Your task to perform on an android device: Open Yahoo.com Image 0: 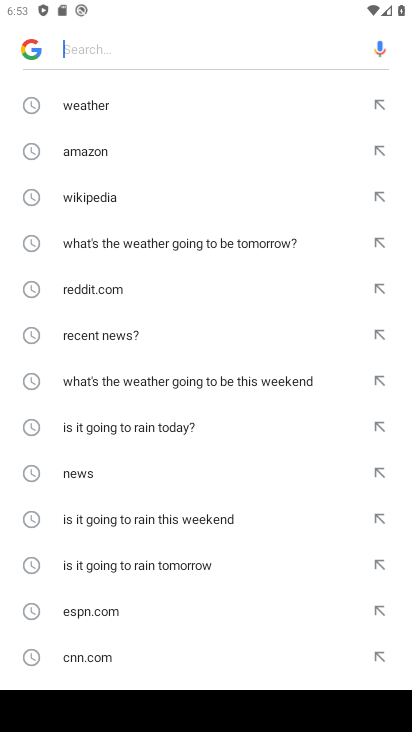
Step 0: press home button
Your task to perform on an android device: Open Yahoo.com Image 1: 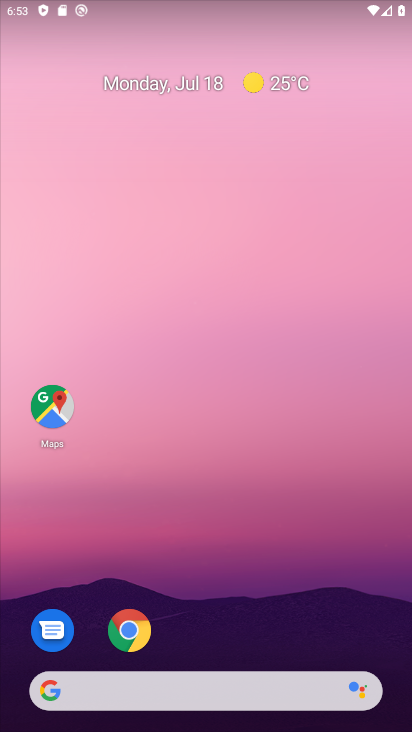
Step 1: click (139, 640)
Your task to perform on an android device: Open Yahoo.com Image 2: 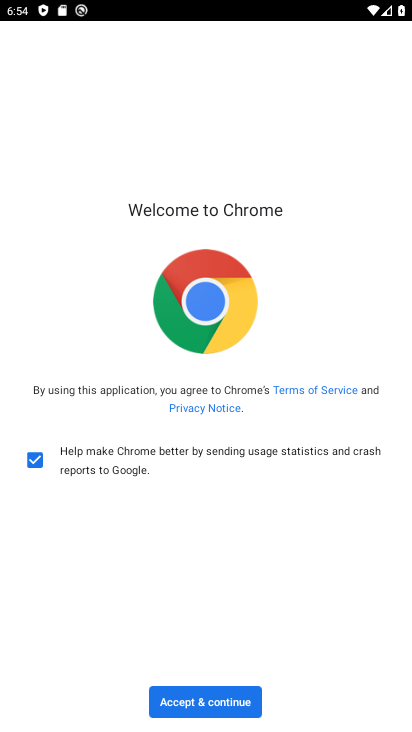
Step 2: click (194, 715)
Your task to perform on an android device: Open Yahoo.com Image 3: 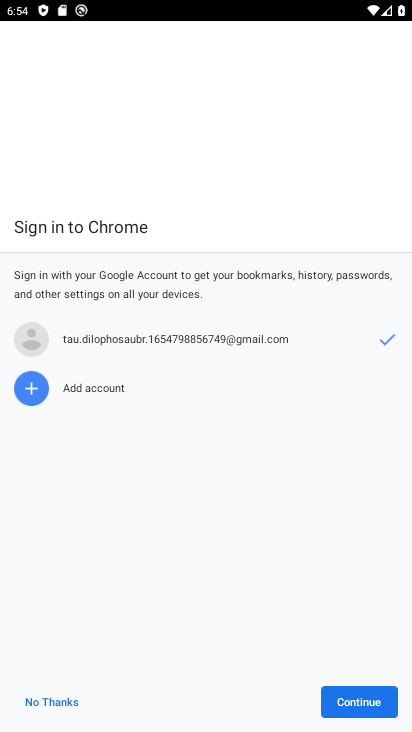
Step 3: click (362, 708)
Your task to perform on an android device: Open Yahoo.com Image 4: 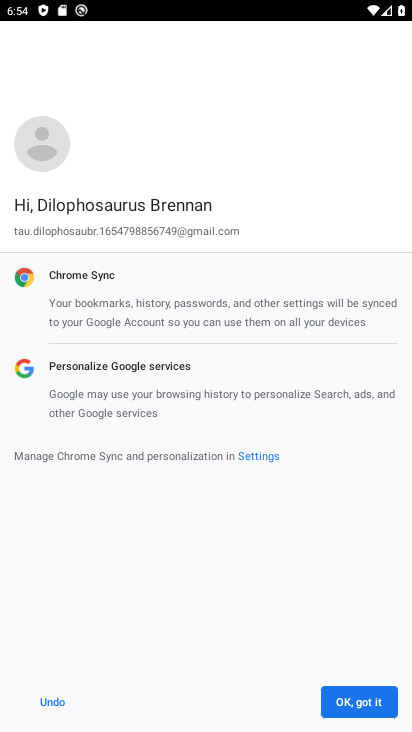
Step 4: click (348, 703)
Your task to perform on an android device: Open Yahoo.com Image 5: 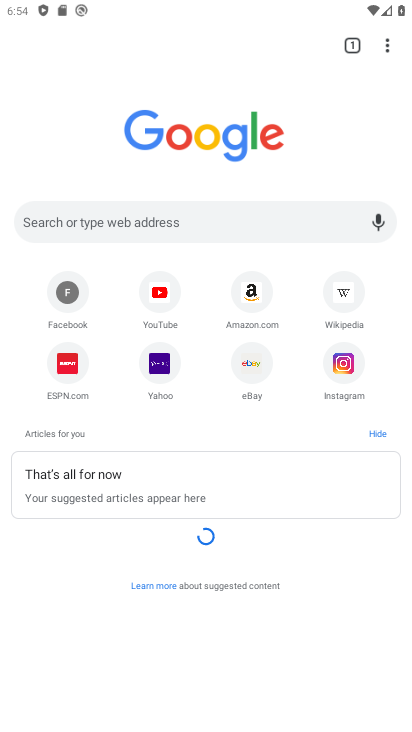
Step 5: click (169, 380)
Your task to perform on an android device: Open Yahoo.com Image 6: 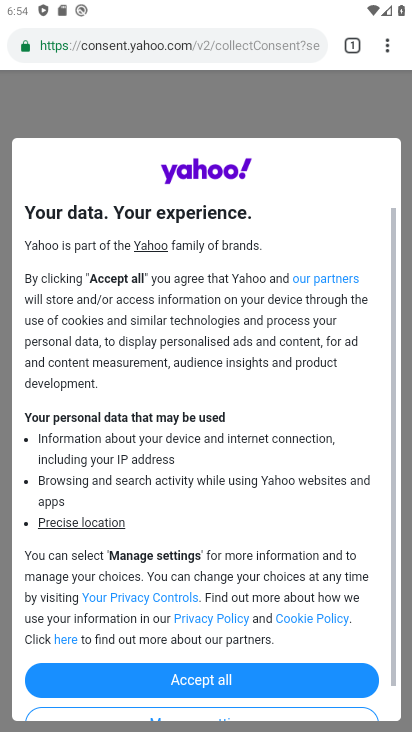
Step 6: click (226, 673)
Your task to perform on an android device: Open Yahoo.com Image 7: 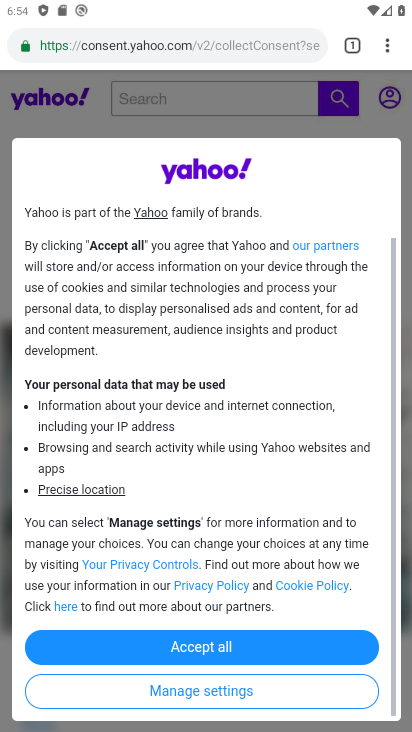
Step 7: click (218, 643)
Your task to perform on an android device: Open Yahoo.com Image 8: 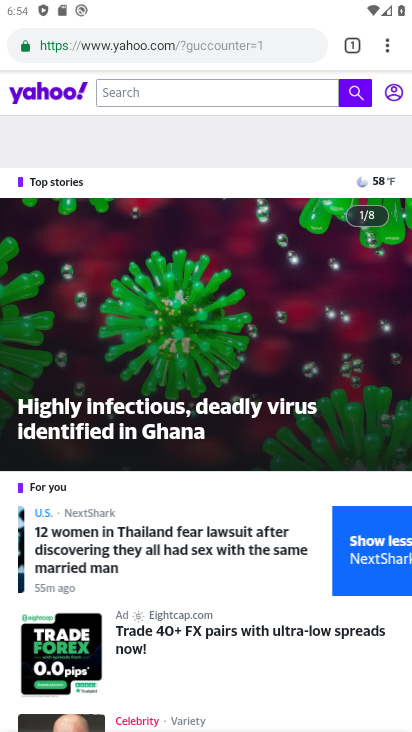
Step 8: task complete